Your task to perform on an android device: add a label to a message in the gmail app Image 0: 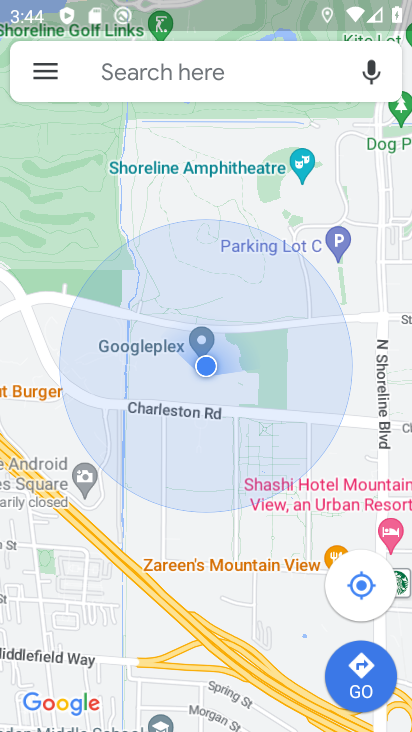
Step 0: press home button
Your task to perform on an android device: add a label to a message in the gmail app Image 1: 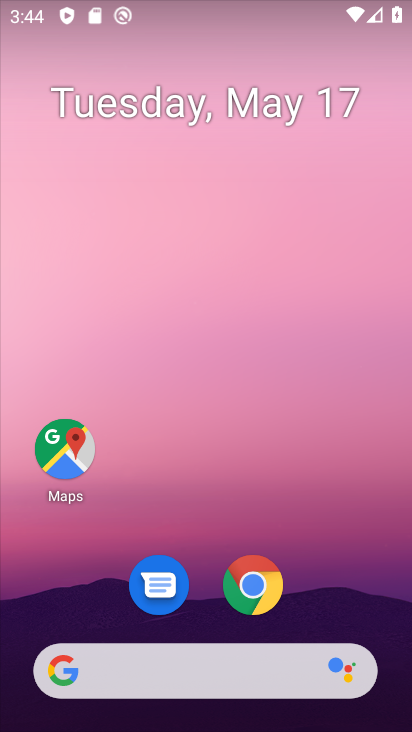
Step 1: drag from (220, 462) to (222, 36)
Your task to perform on an android device: add a label to a message in the gmail app Image 2: 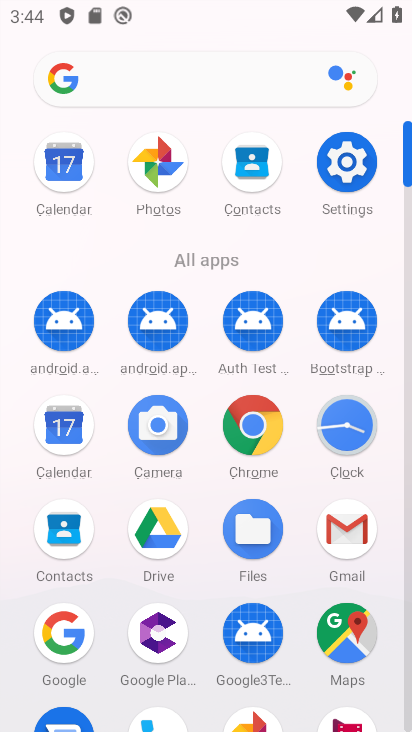
Step 2: click (341, 522)
Your task to perform on an android device: add a label to a message in the gmail app Image 3: 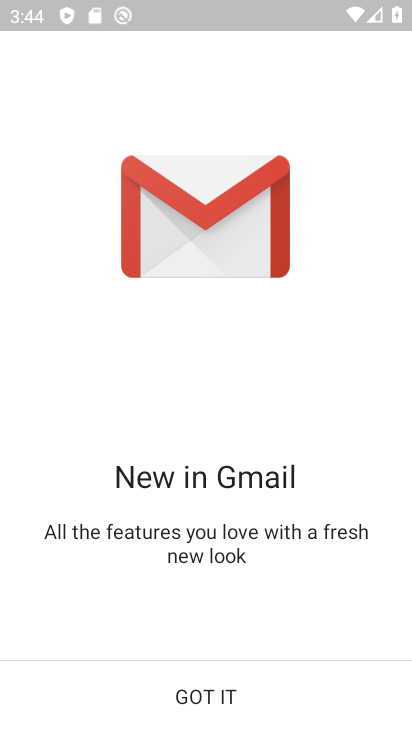
Step 3: click (216, 692)
Your task to perform on an android device: add a label to a message in the gmail app Image 4: 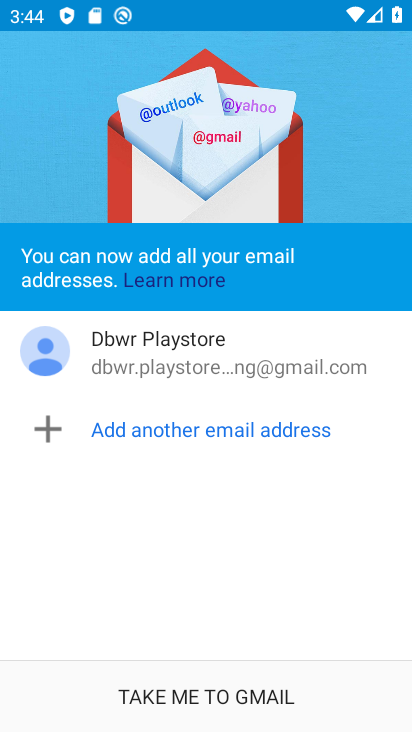
Step 4: click (219, 692)
Your task to perform on an android device: add a label to a message in the gmail app Image 5: 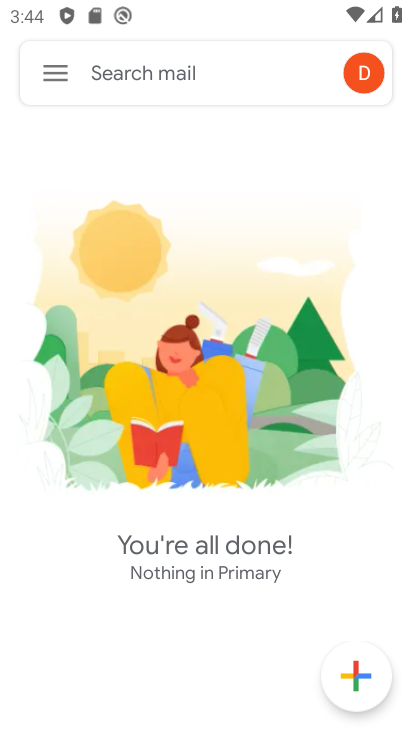
Step 5: click (56, 77)
Your task to perform on an android device: add a label to a message in the gmail app Image 6: 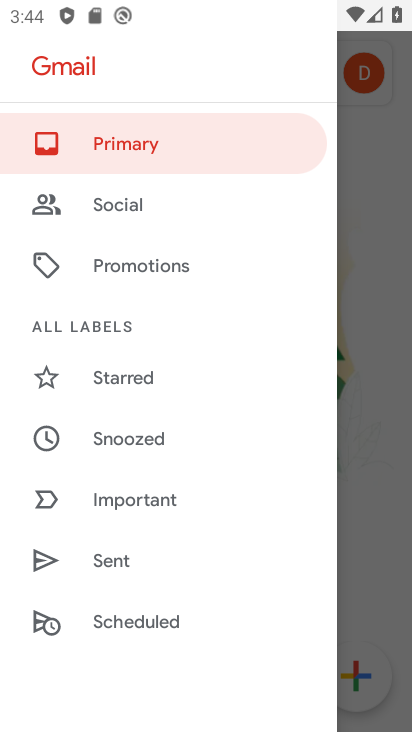
Step 6: drag from (152, 516) to (210, 106)
Your task to perform on an android device: add a label to a message in the gmail app Image 7: 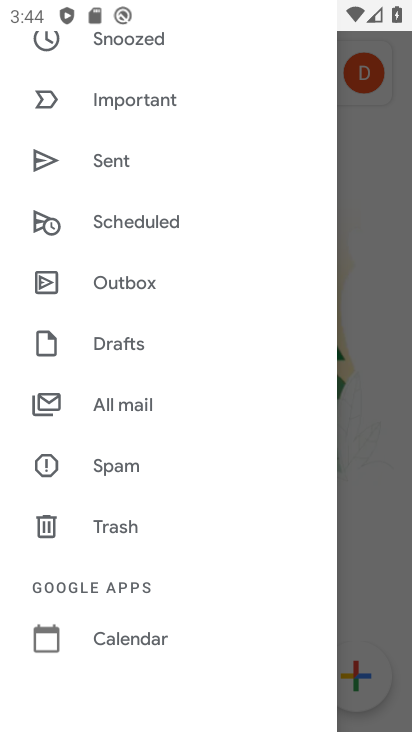
Step 7: click (147, 403)
Your task to perform on an android device: add a label to a message in the gmail app Image 8: 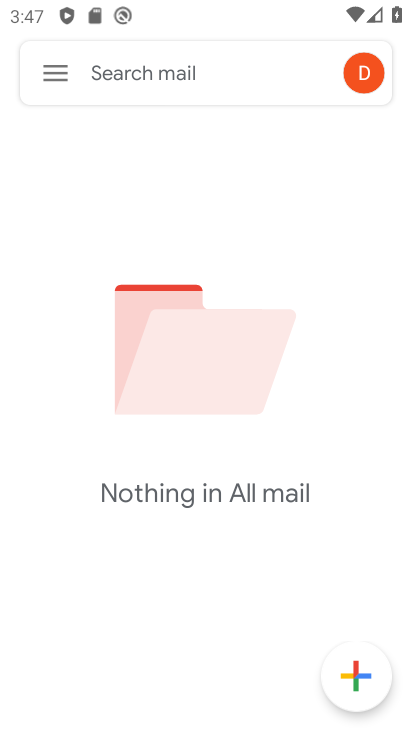
Step 8: task complete